Your task to perform on an android device: Open settings Image 0: 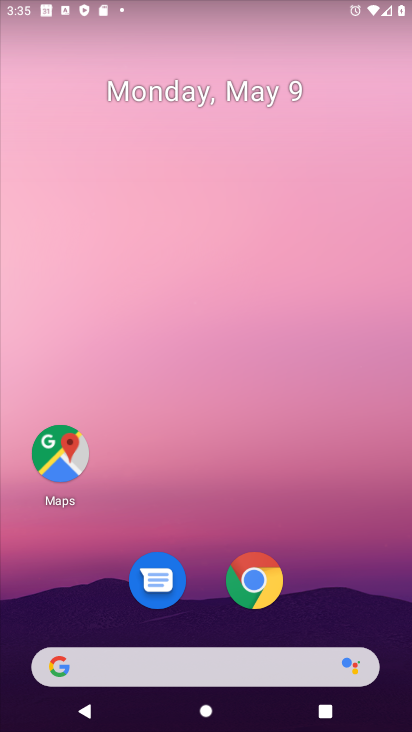
Step 0: drag from (350, 596) to (246, 163)
Your task to perform on an android device: Open settings Image 1: 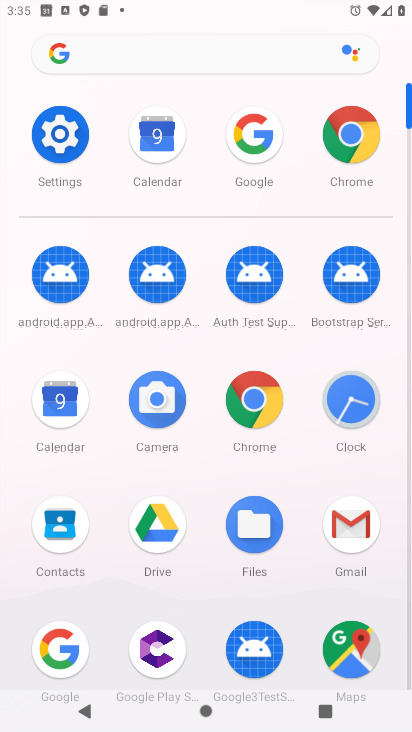
Step 1: click (70, 134)
Your task to perform on an android device: Open settings Image 2: 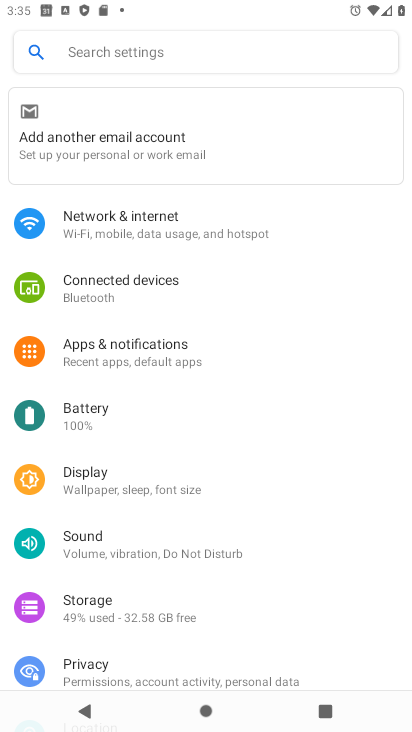
Step 2: task complete